Your task to perform on an android device: change the clock style Image 0: 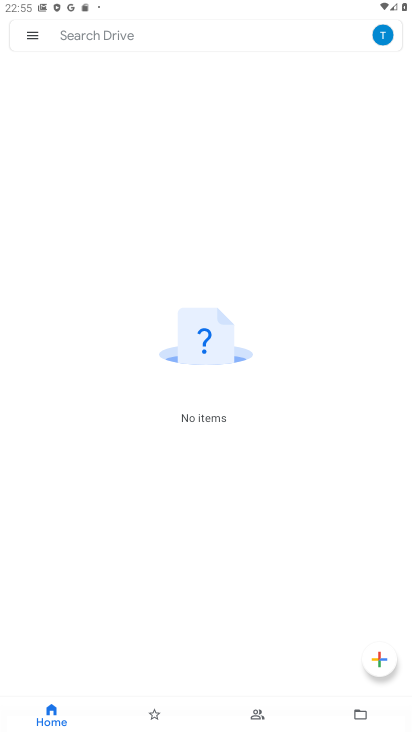
Step 0: press home button
Your task to perform on an android device: change the clock style Image 1: 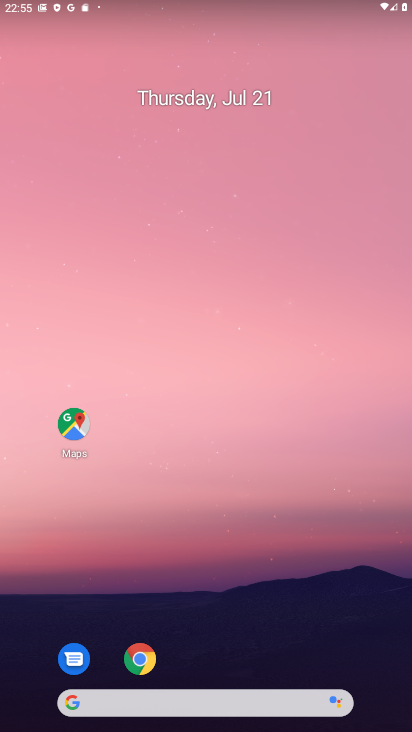
Step 1: drag from (190, 695) to (183, 22)
Your task to perform on an android device: change the clock style Image 2: 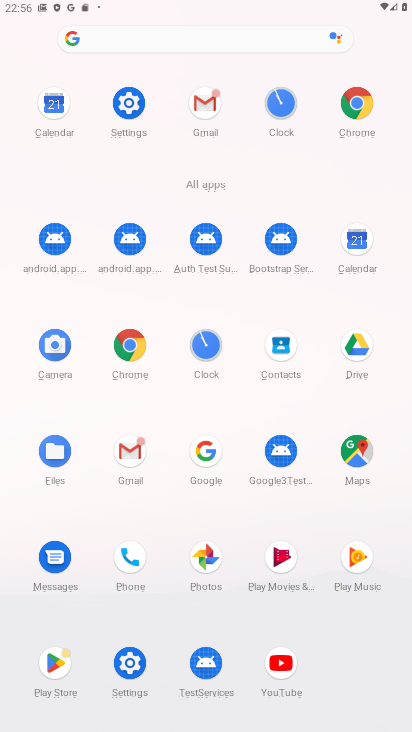
Step 2: click (206, 345)
Your task to perform on an android device: change the clock style Image 3: 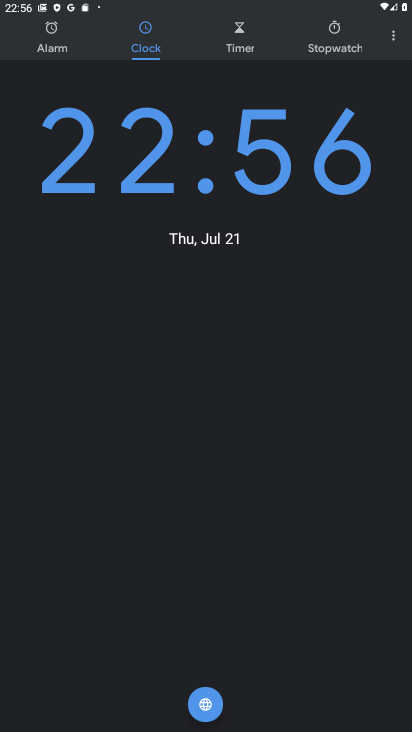
Step 3: click (396, 37)
Your task to perform on an android device: change the clock style Image 4: 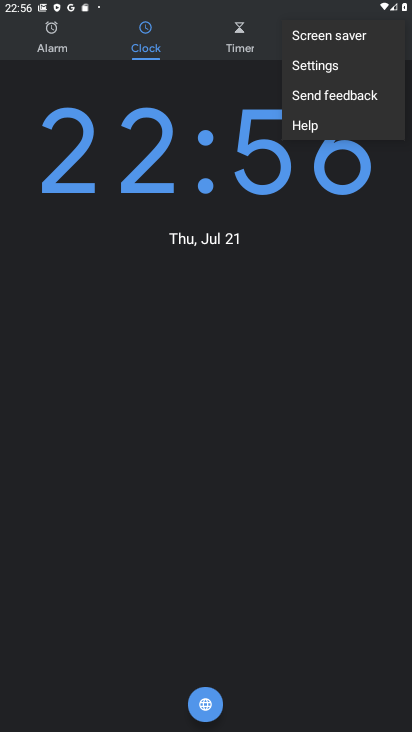
Step 4: click (334, 69)
Your task to perform on an android device: change the clock style Image 5: 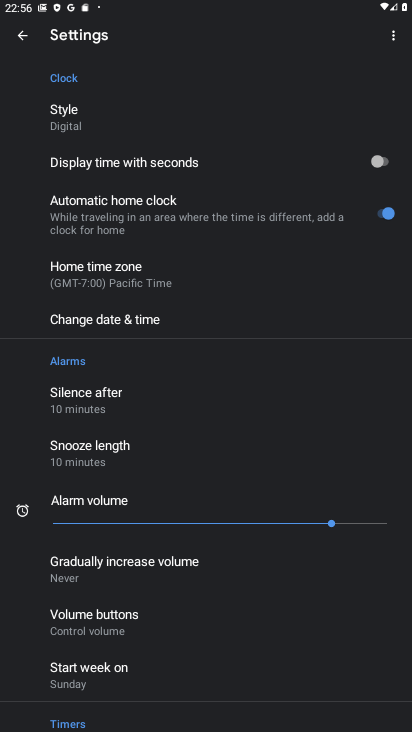
Step 5: click (76, 120)
Your task to perform on an android device: change the clock style Image 6: 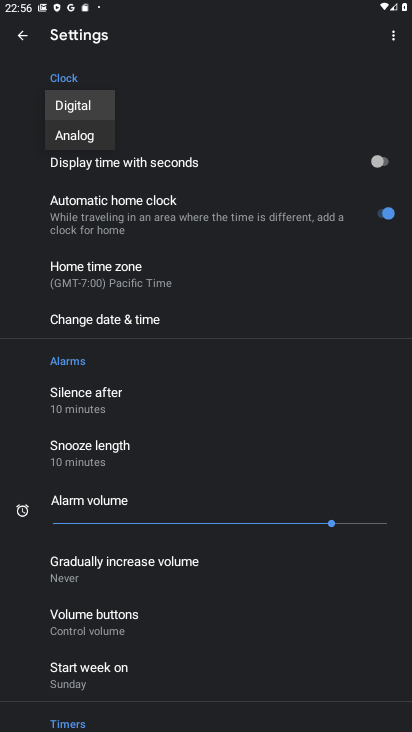
Step 6: click (80, 136)
Your task to perform on an android device: change the clock style Image 7: 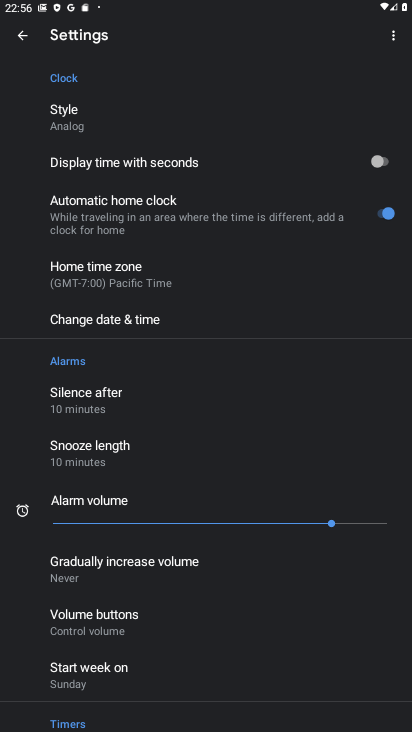
Step 7: task complete